Your task to perform on an android device: check battery use Image 0: 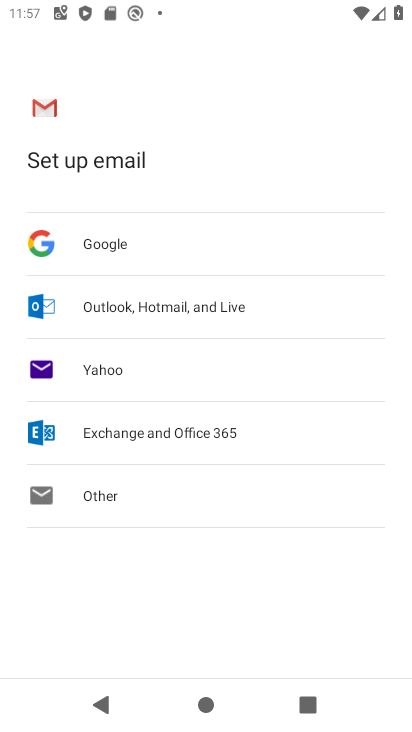
Step 0: press home button
Your task to perform on an android device: check battery use Image 1: 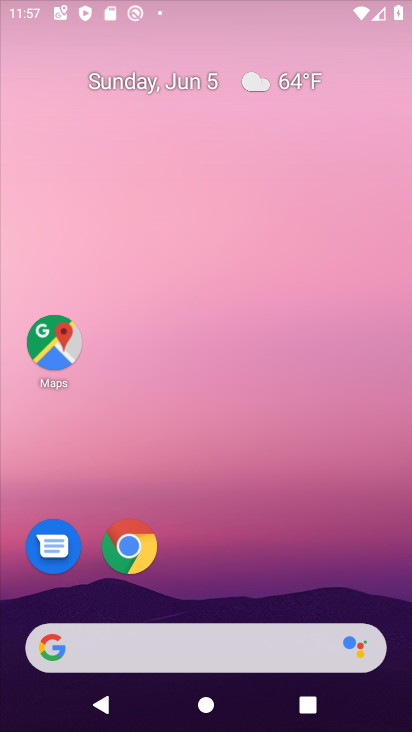
Step 1: drag from (217, 577) to (246, 237)
Your task to perform on an android device: check battery use Image 2: 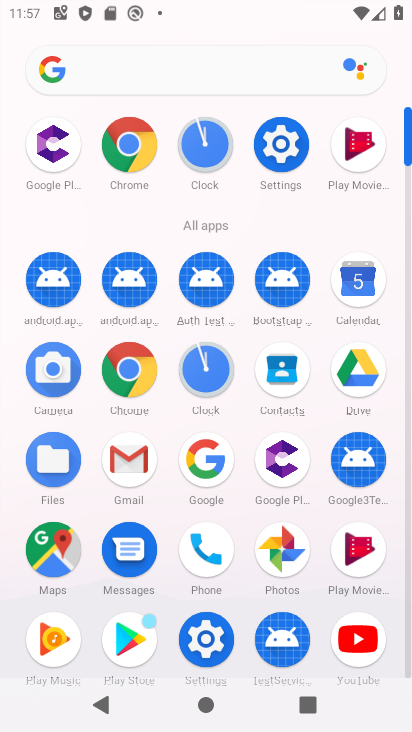
Step 2: click (283, 144)
Your task to perform on an android device: check battery use Image 3: 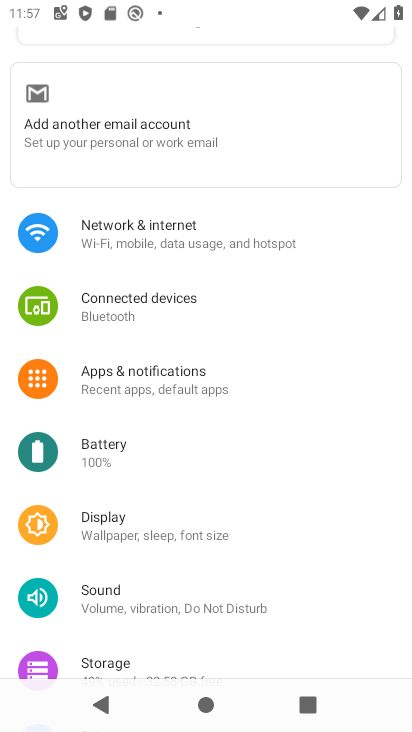
Step 3: click (137, 453)
Your task to perform on an android device: check battery use Image 4: 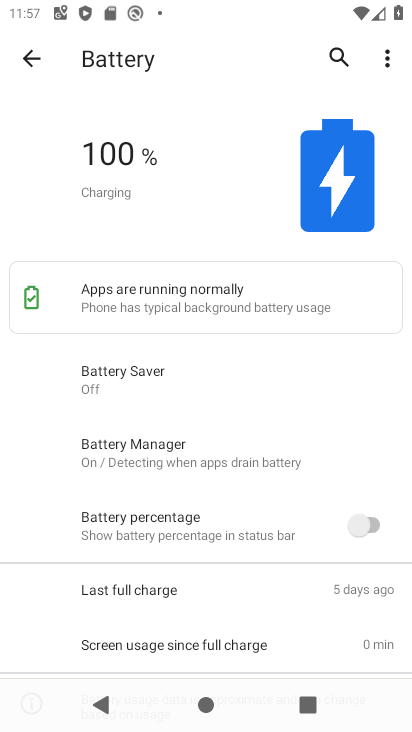
Step 4: task complete